Your task to perform on an android device: Open Google Chrome and open the bookmarks view Image 0: 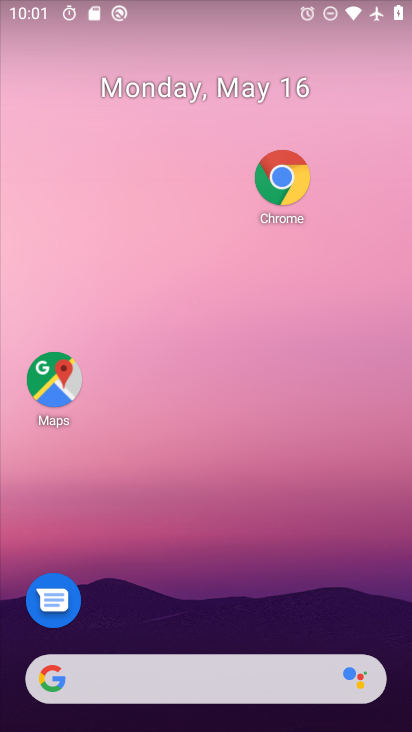
Step 0: press home button
Your task to perform on an android device: Open Google Chrome and open the bookmarks view Image 1: 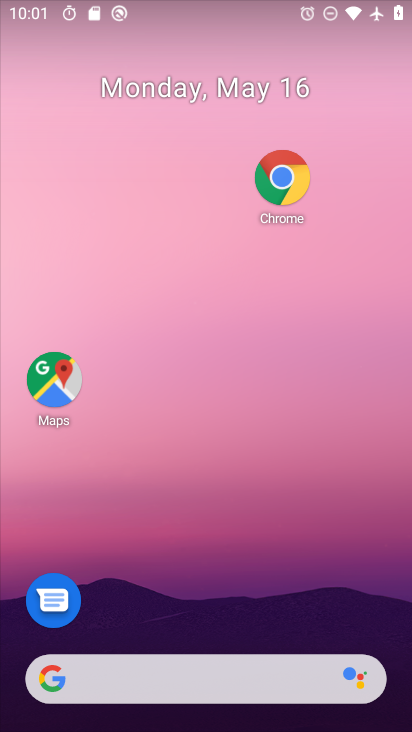
Step 1: click (288, 175)
Your task to perform on an android device: Open Google Chrome and open the bookmarks view Image 2: 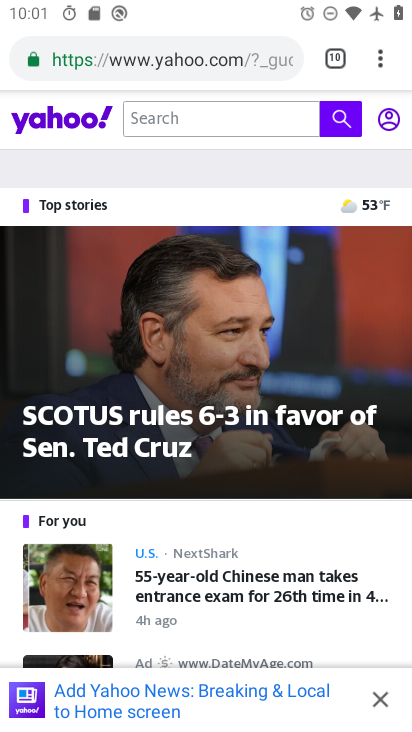
Step 2: task complete